Your task to perform on an android device: toggle location history Image 0: 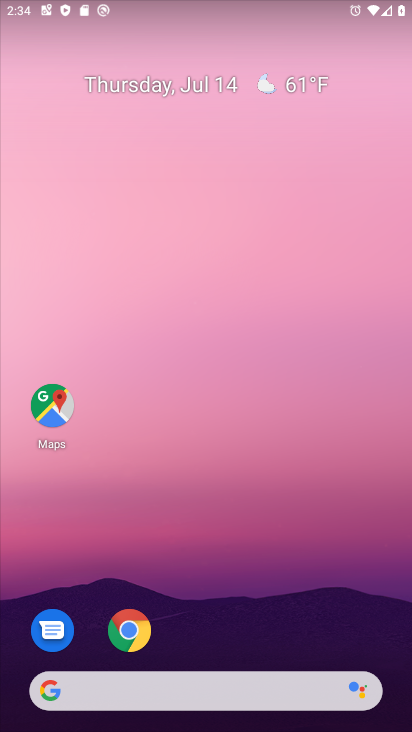
Step 0: press home button
Your task to perform on an android device: toggle location history Image 1: 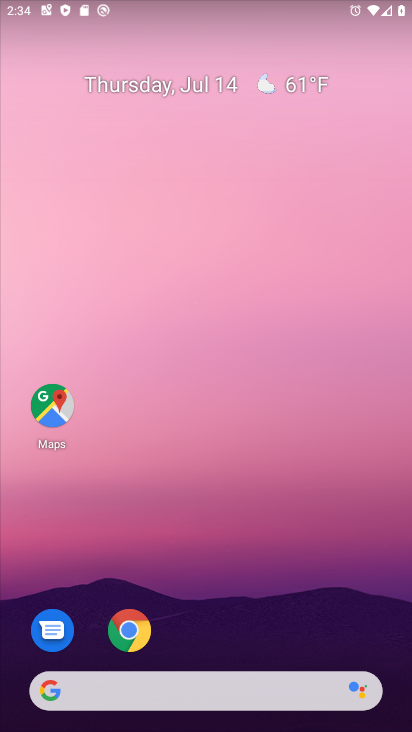
Step 1: drag from (157, 694) to (294, 255)
Your task to perform on an android device: toggle location history Image 2: 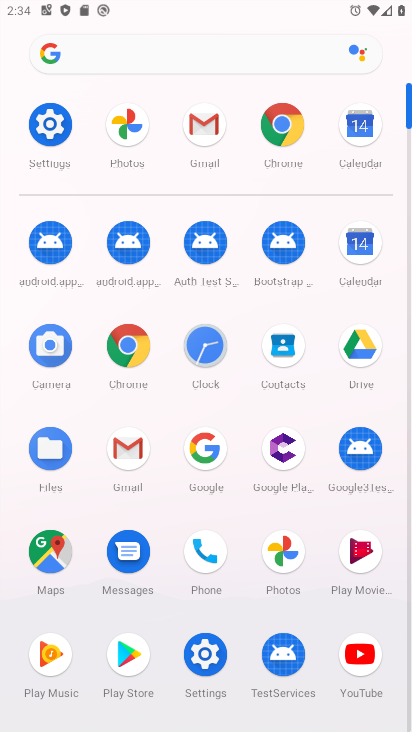
Step 2: click (51, 130)
Your task to perform on an android device: toggle location history Image 3: 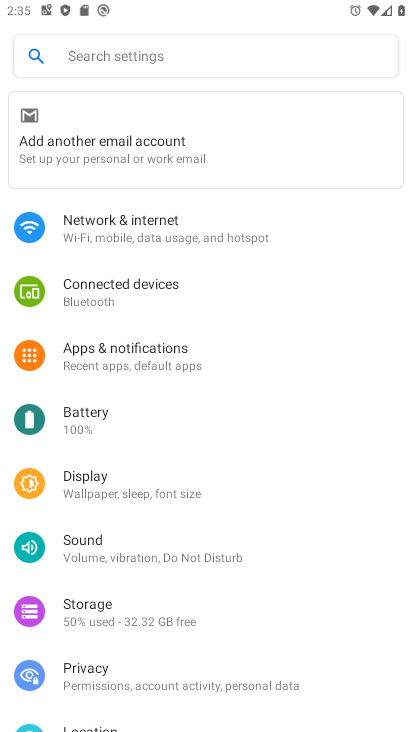
Step 3: drag from (247, 585) to (315, 340)
Your task to perform on an android device: toggle location history Image 4: 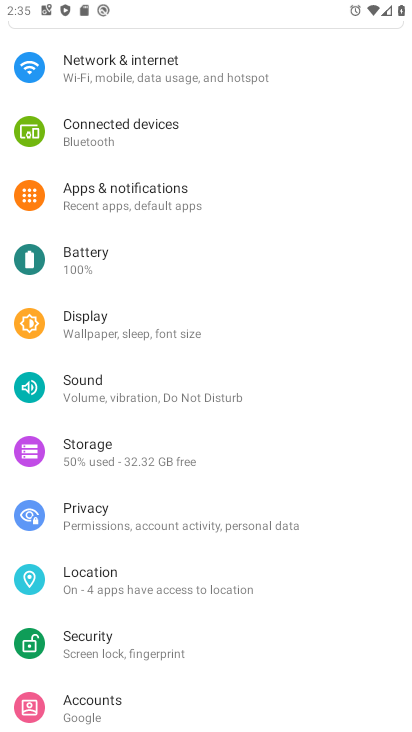
Step 4: click (119, 584)
Your task to perform on an android device: toggle location history Image 5: 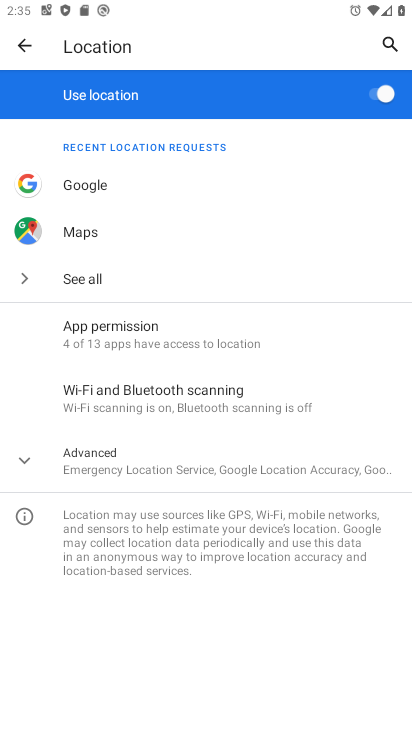
Step 5: click (156, 461)
Your task to perform on an android device: toggle location history Image 6: 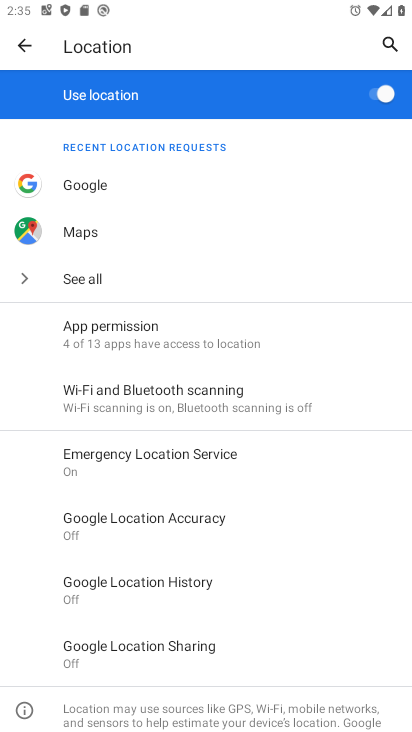
Step 6: click (129, 578)
Your task to perform on an android device: toggle location history Image 7: 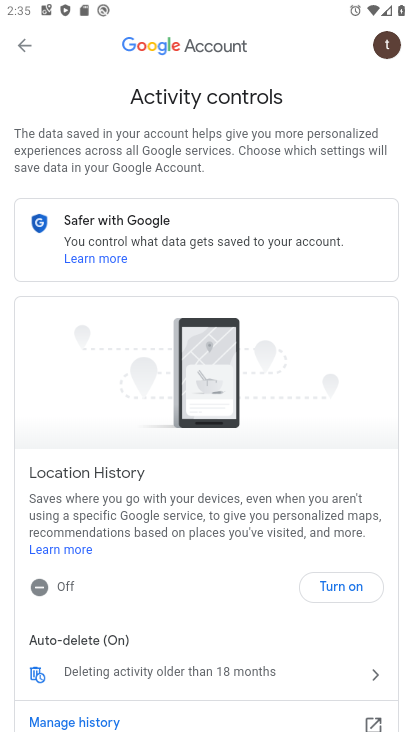
Step 7: click (327, 584)
Your task to perform on an android device: toggle location history Image 8: 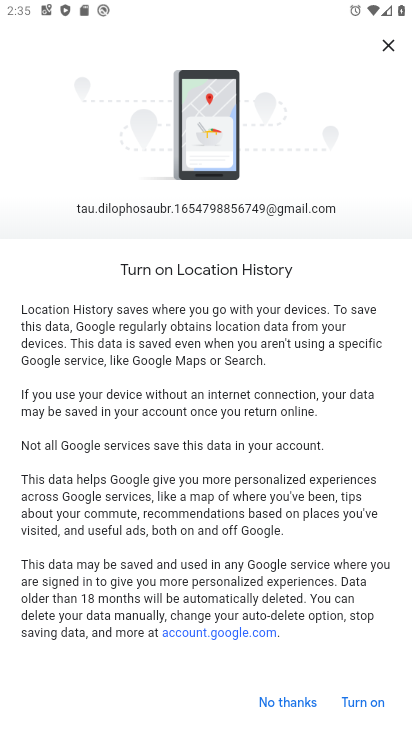
Step 8: click (353, 700)
Your task to perform on an android device: toggle location history Image 9: 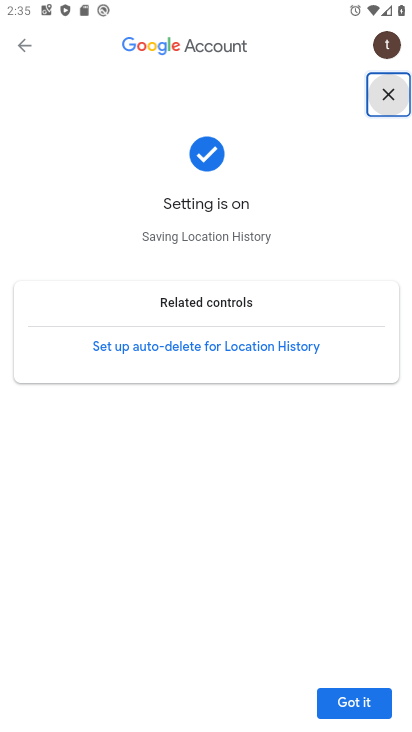
Step 9: click (351, 703)
Your task to perform on an android device: toggle location history Image 10: 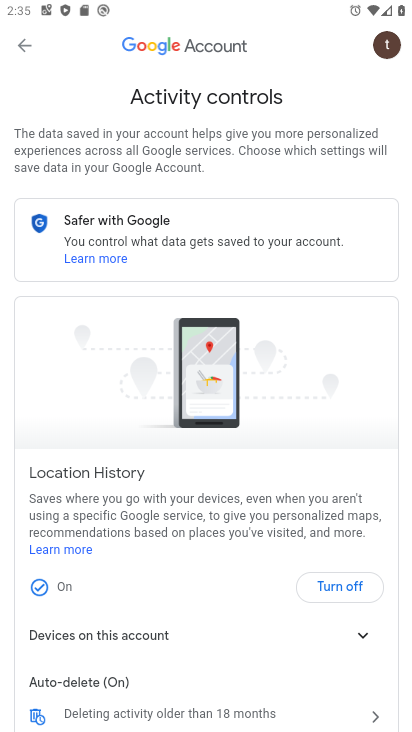
Step 10: task complete